Your task to perform on an android device: turn on data saver in the chrome app Image 0: 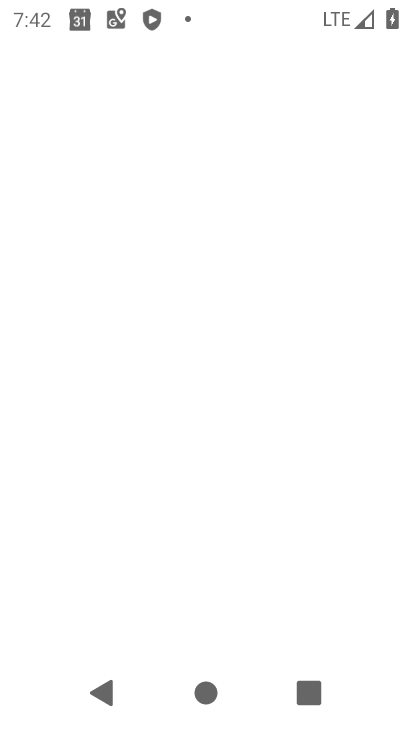
Step 0: press home button
Your task to perform on an android device: turn on data saver in the chrome app Image 1: 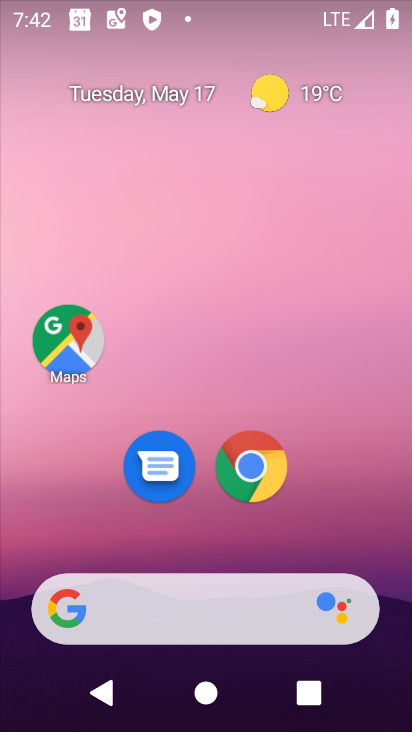
Step 1: click (263, 475)
Your task to perform on an android device: turn on data saver in the chrome app Image 2: 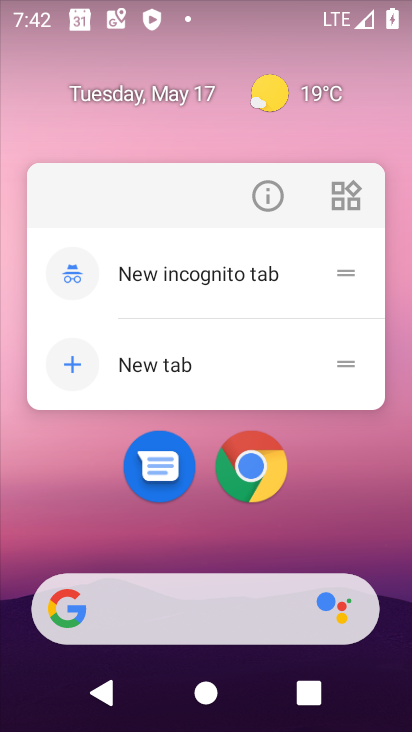
Step 2: click (248, 477)
Your task to perform on an android device: turn on data saver in the chrome app Image 3: 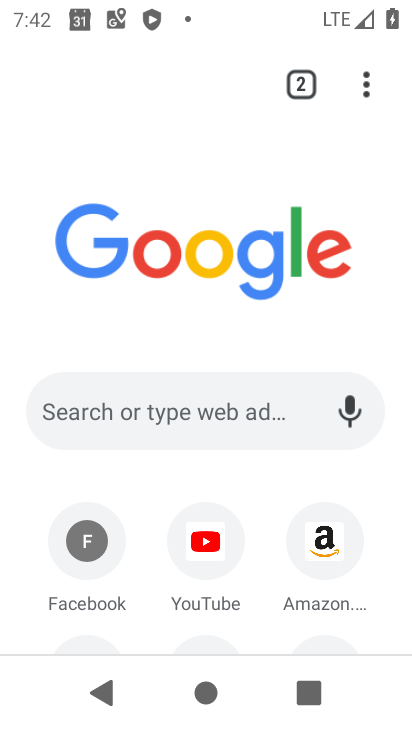
Step 3: drag from (365, 88) to (204, 514)
Your task to perform on an android device: turn on data saver in the chrome app Image 4: 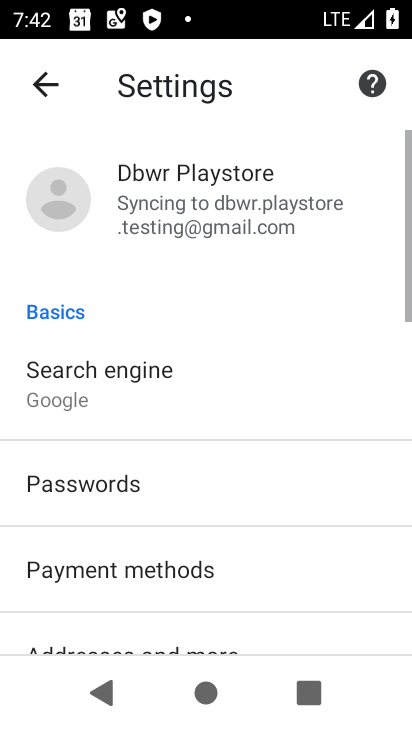
Step 4: drag from (187, 606) to (373, 128)
Your task to perform on an android device: turn on data saver in the chrome app Image 5: 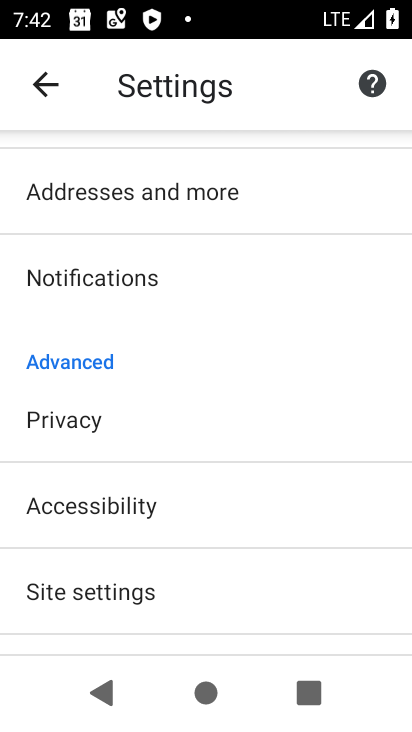
Step 5: drag from (179, 590) to (314, 256)
Your task to perform on an android device: turn on data saver in the chrome app Image 6: 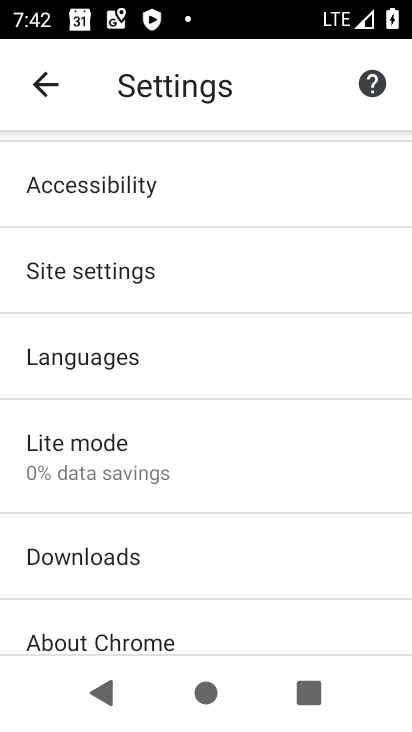
Step 6: click (135, 473)
Your task to perform on an android device: turn on data saver in the chrome app Image 7: 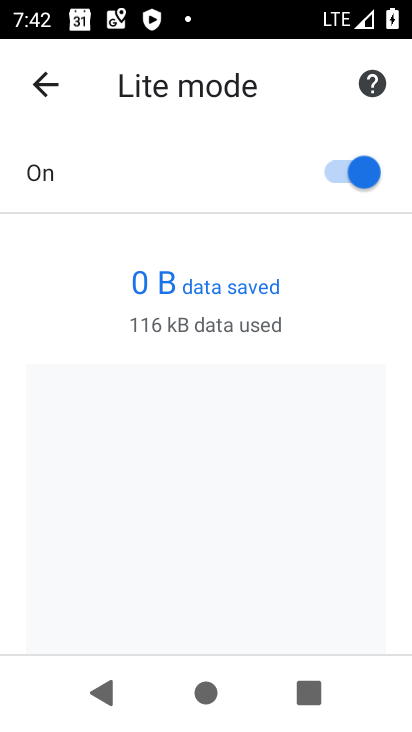
Step 7: task complete